Your task to perform on an android device: Turn on the flashlight Image 0: 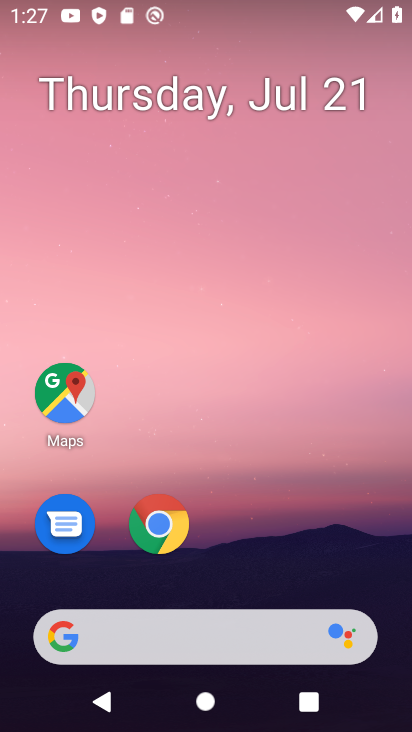
Step 0: drag from (279, 547) to (363, 47)
Your task to perform on an android device: Turn on the flashlight Image 1: 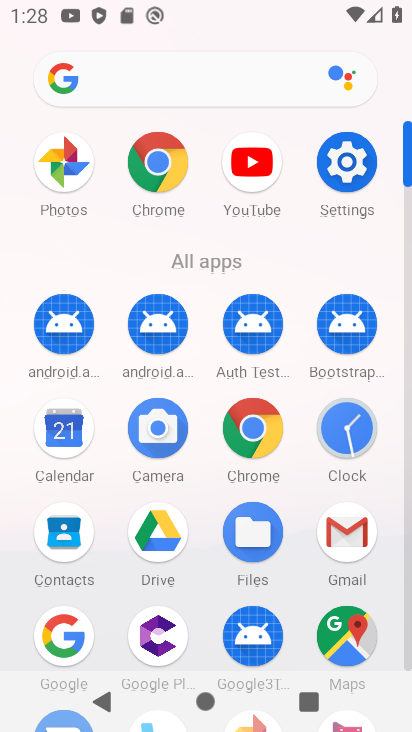
Step 1: click (353, 166)
Your task to perform on an android device: Turn on the flashlight Image 2: 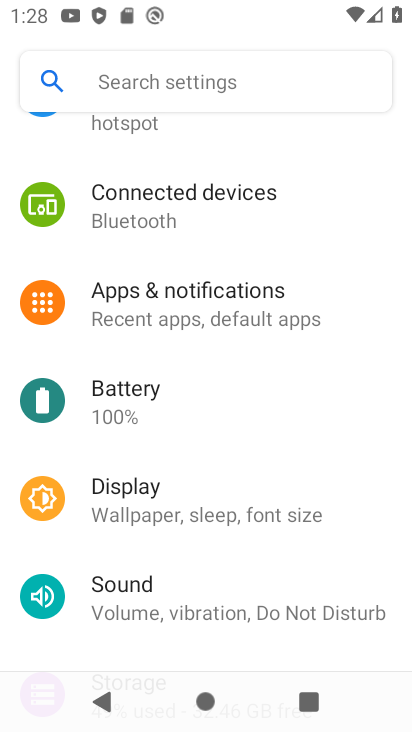
Step 2: drag from (234, 257) to (190, 533)
Your task to perform on an android device: Turn on the flashlight Image 3: 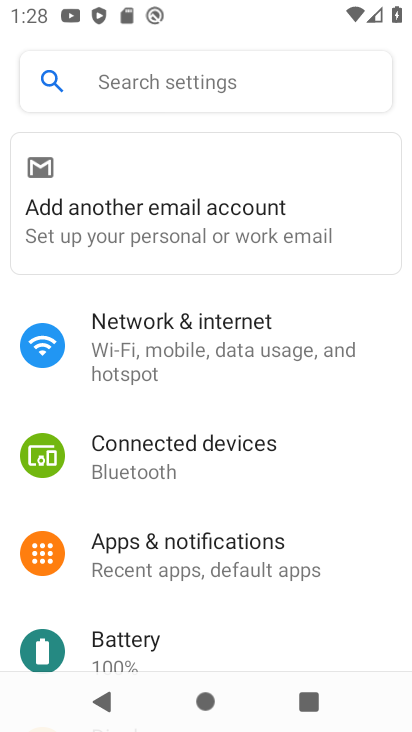
Step 3: drag from (210, 539) to (247, 318)
Your task to perform on an android device: Turn on the flashlight Image 4: 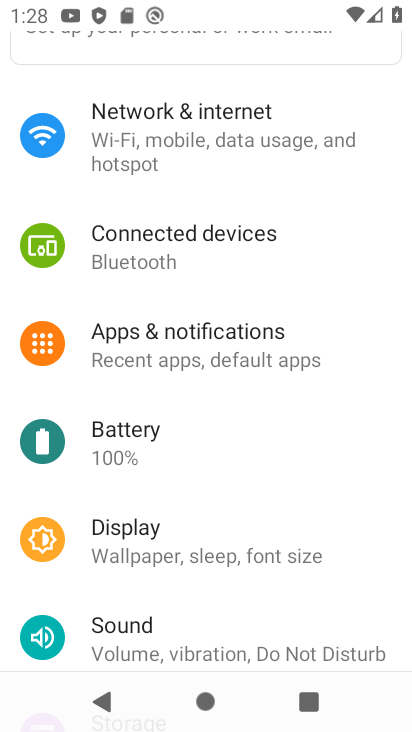
Step 4: drag from (248, 199) to (273, 599)
Your task to perform on an android device: Turn on the flashlight Image 5: 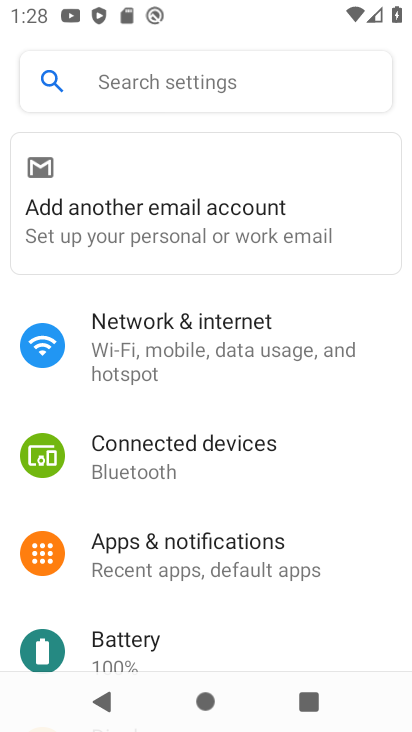
Step 5: click (288, 84)
Your task to perform on an android device: Turn on the flashlight Image 6: 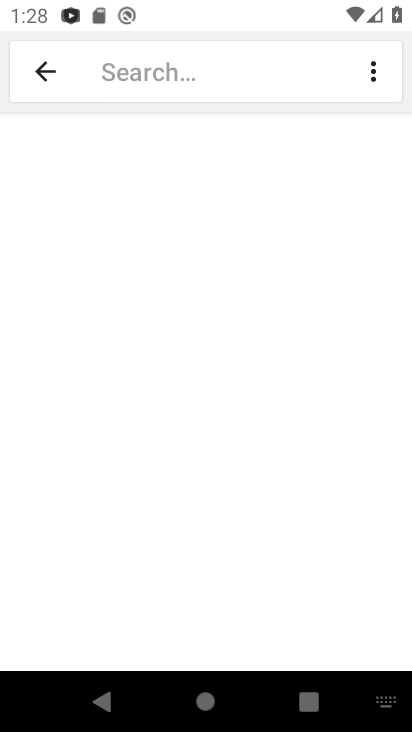
Step 6: type "Flashlight"
Your task to perform on an android device: Turn on the flashlight Image 7: 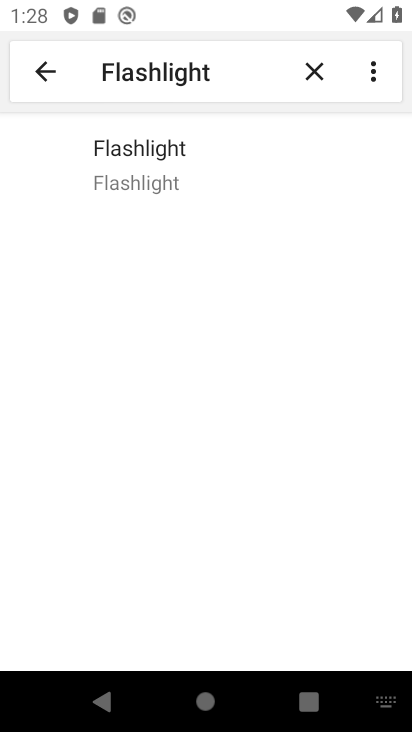
Step 7: click (162, 161)
Your task to perform on an android device: Turn on the flashlight Image 8: 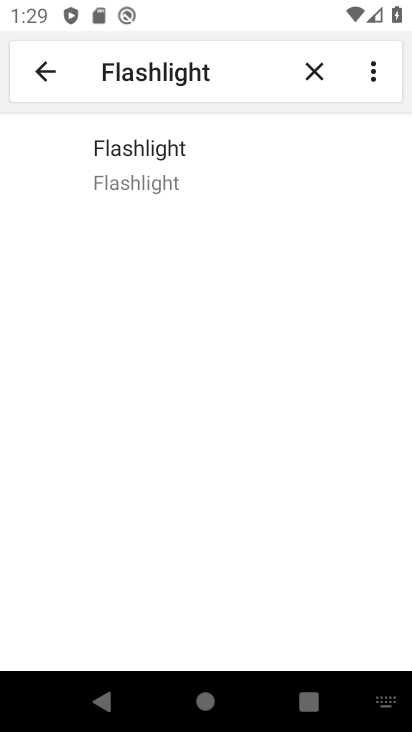
Step 8: click (154, 168)
Your task to perform on an android device: Turn on the flashlight Image 9: 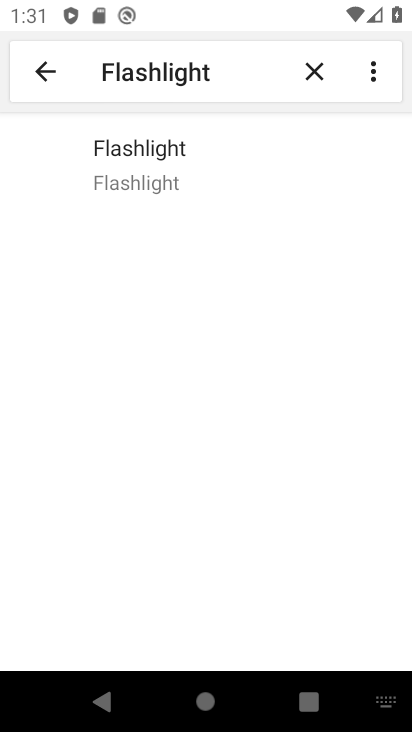
Step 9: task complete